Your task to perform on an android device: Turn off the flashlight Image 0: 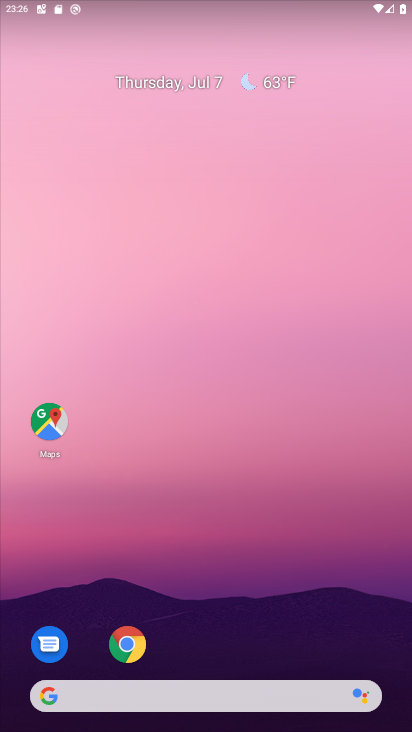
Step 0: drag from (241, 726) to (226, 72)
Your task to perform on an android device: Turn off the flashlight Image 1: 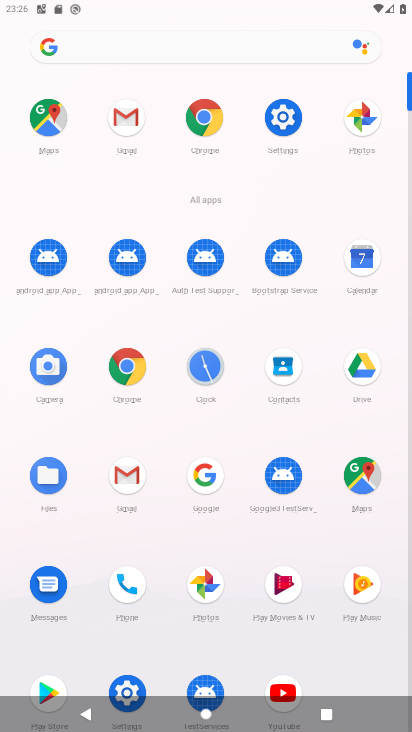
Step 1: click (288, 115)
Your task to perform on an android device: Turn off the flashlight Image 2: 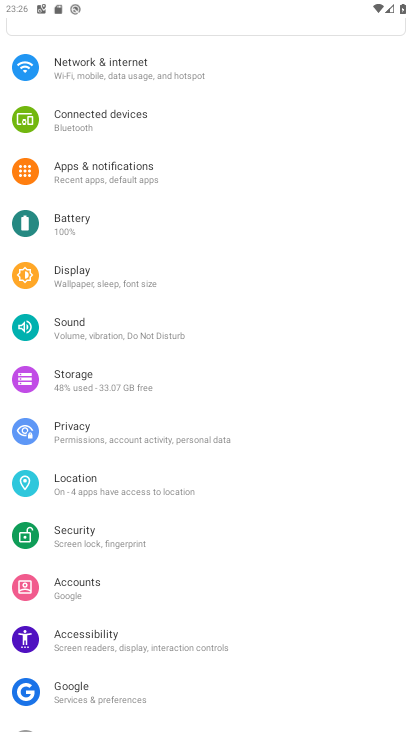
Step 2: task complete